Your task to perform on an android device: move an email to a new category in the gmail app Image 0: 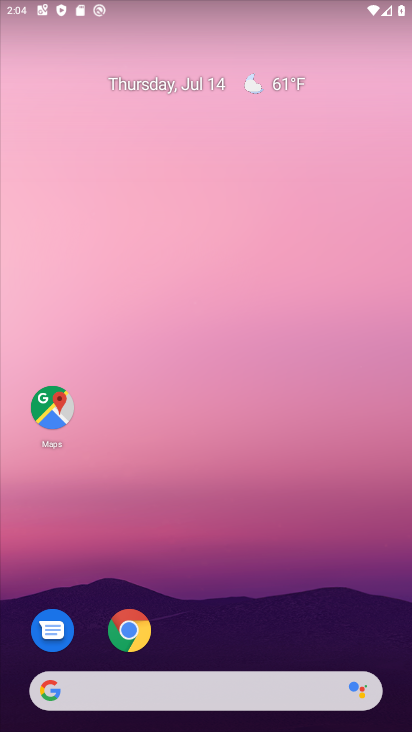
Step 0: drag from (212, 686) to (300, 225)
Your task to perform on an android device: move an email to a new category in the gmail app Image 1: 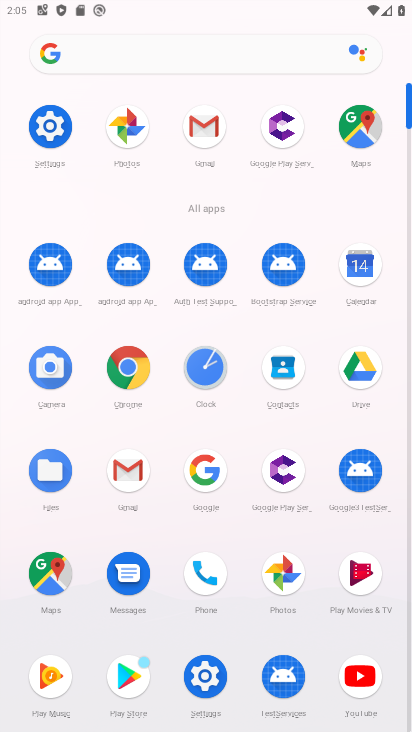
Step 1: click (206, 133)
Your task to perform on an android device: move an email to a new category in the gmail app Image 2: 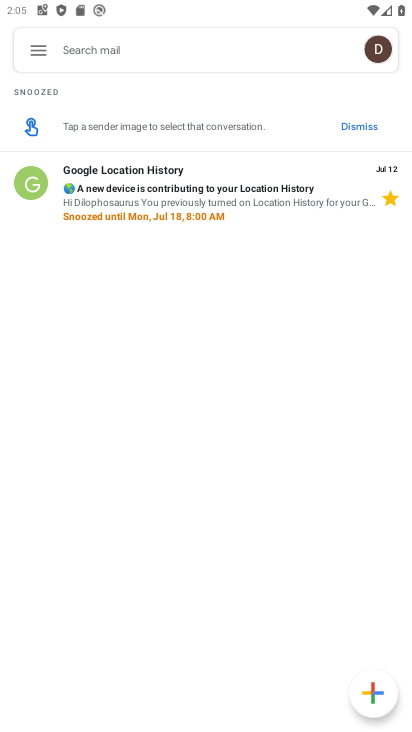
Step 2: click (34, 181)
Your task to perform on an android device: move an email to a new category in the gmail app Image 3: 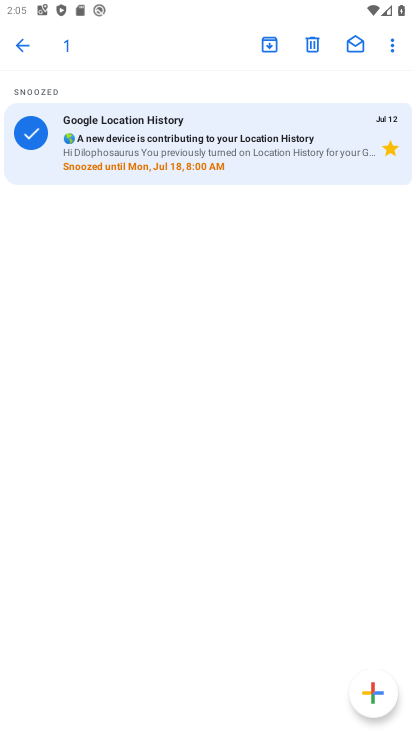
Step 3: click (395, 45)
Your task to perform on an android device: move an email to a new category in the gmail app Image 4: 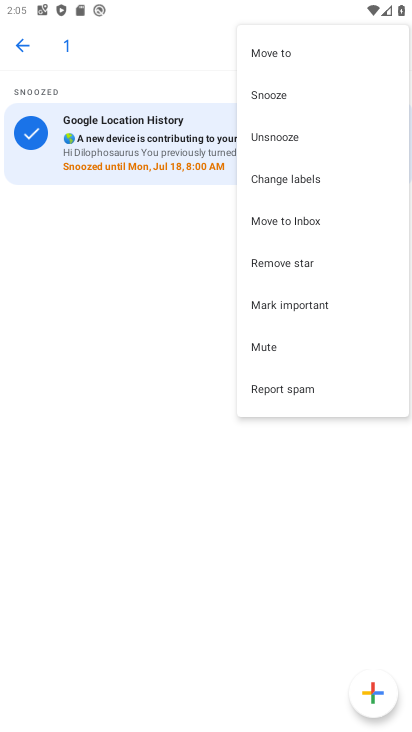
Step 4: click (314, 222)
Your task to perform on an android device: move an email to a new category in the gmail app Image 5: 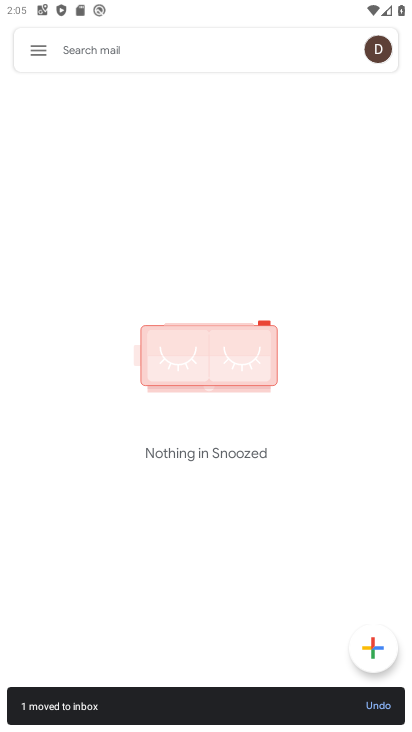
Step 5: task complete